Your task to perform on an android device: What's the weather? Image 0: 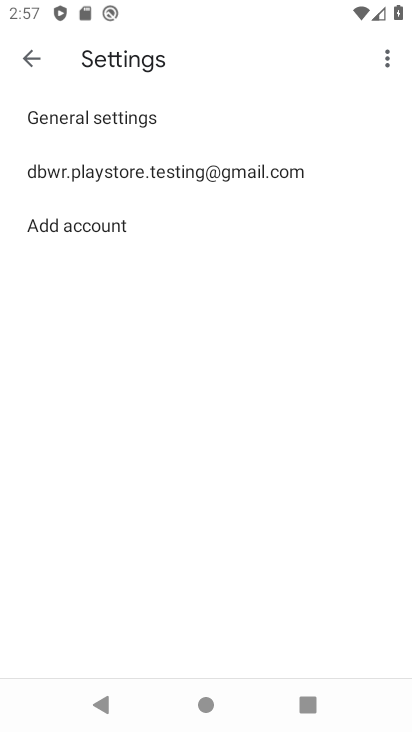
Step 0: press home button
Your task to perform on an android device: What's the weather? Image 1: 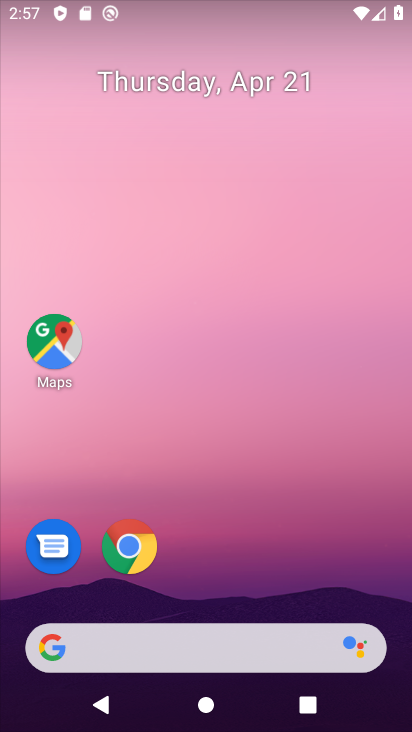
Step 1: drag from (227, 584) to (259, 497)
Your task to perform on an android device: What's the weather? Image 2: 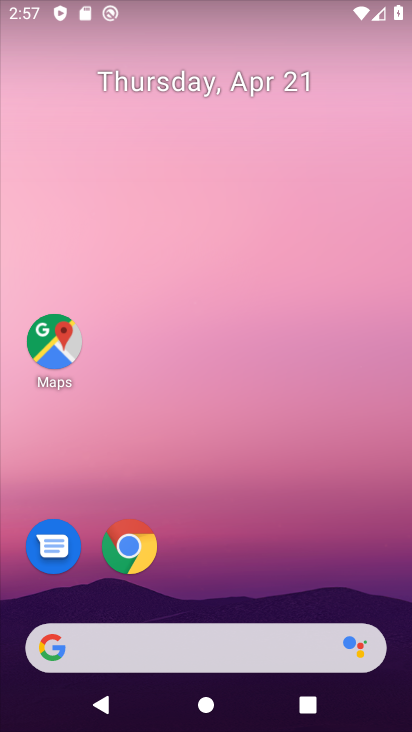
Step 2: click (143, 638)
Your task to perform on an android device: What's the weather? Image 3: 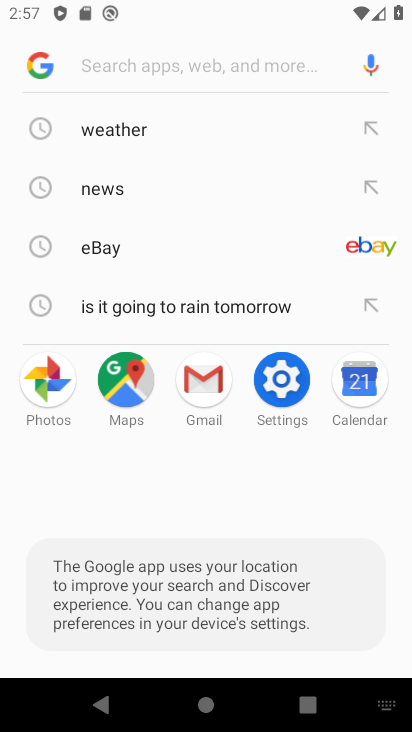
Step 3: click (124, 132)
Your task to perform on an android device: What's the weather? Image 4: 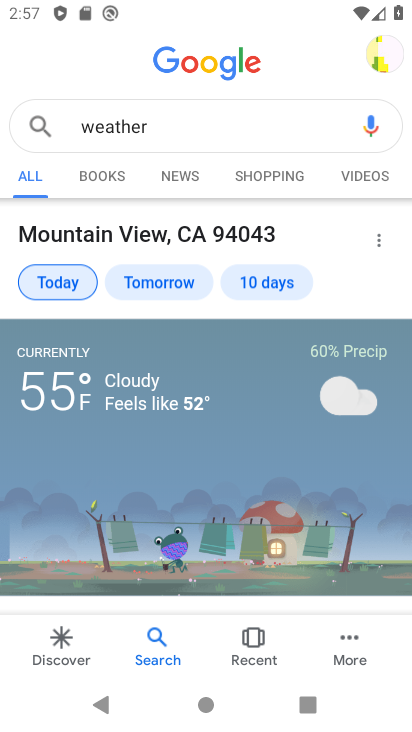
Step 4: task complete